Your task to perform on an android device: check data usage Image 0: 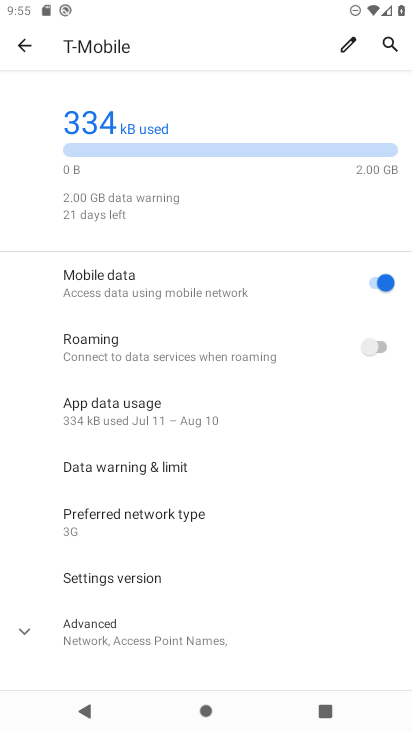
Step 0: task complete